Your task to perform on an android device: uninstall "Nova Launcher" Image 0: 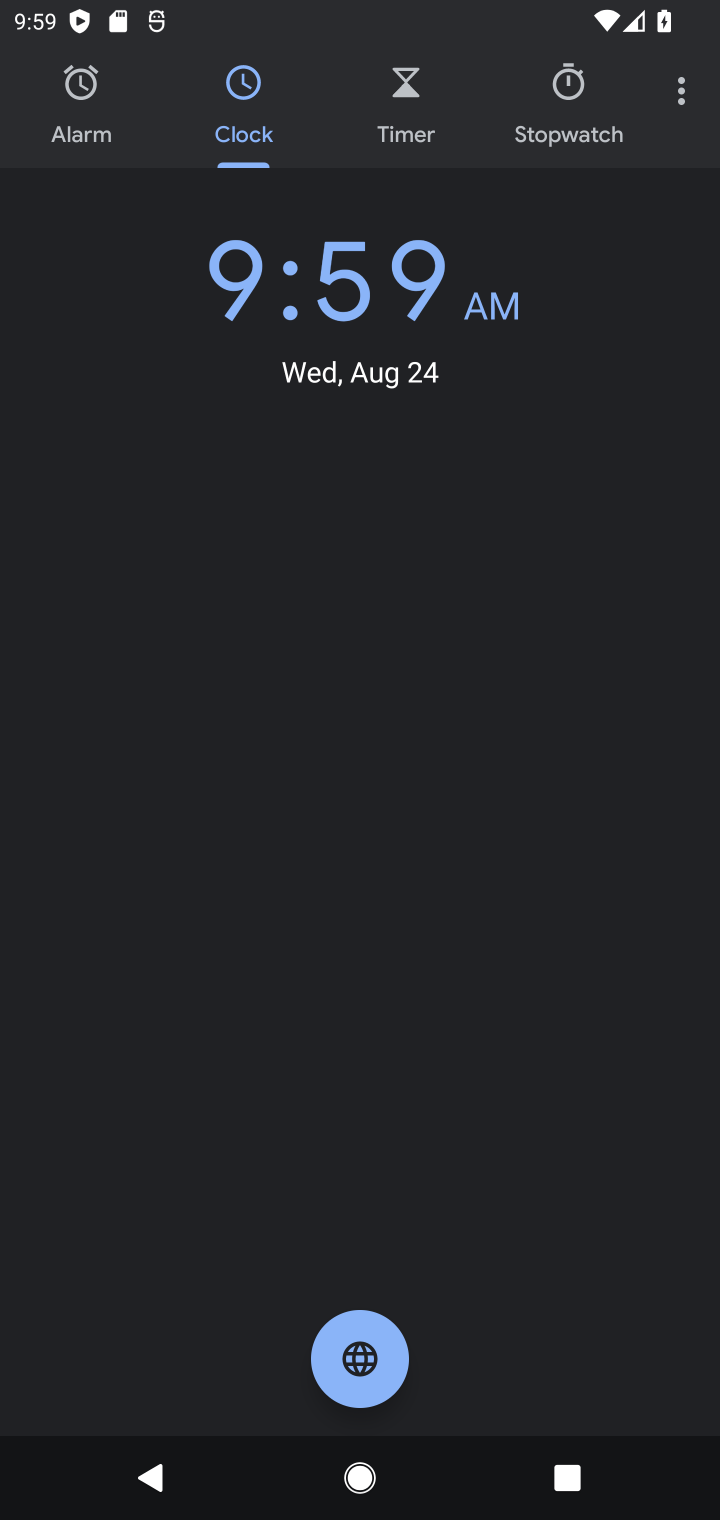
Step 0: press home button
Your task to perform on an android device: uninstall "Nova Launcher" Image 1: 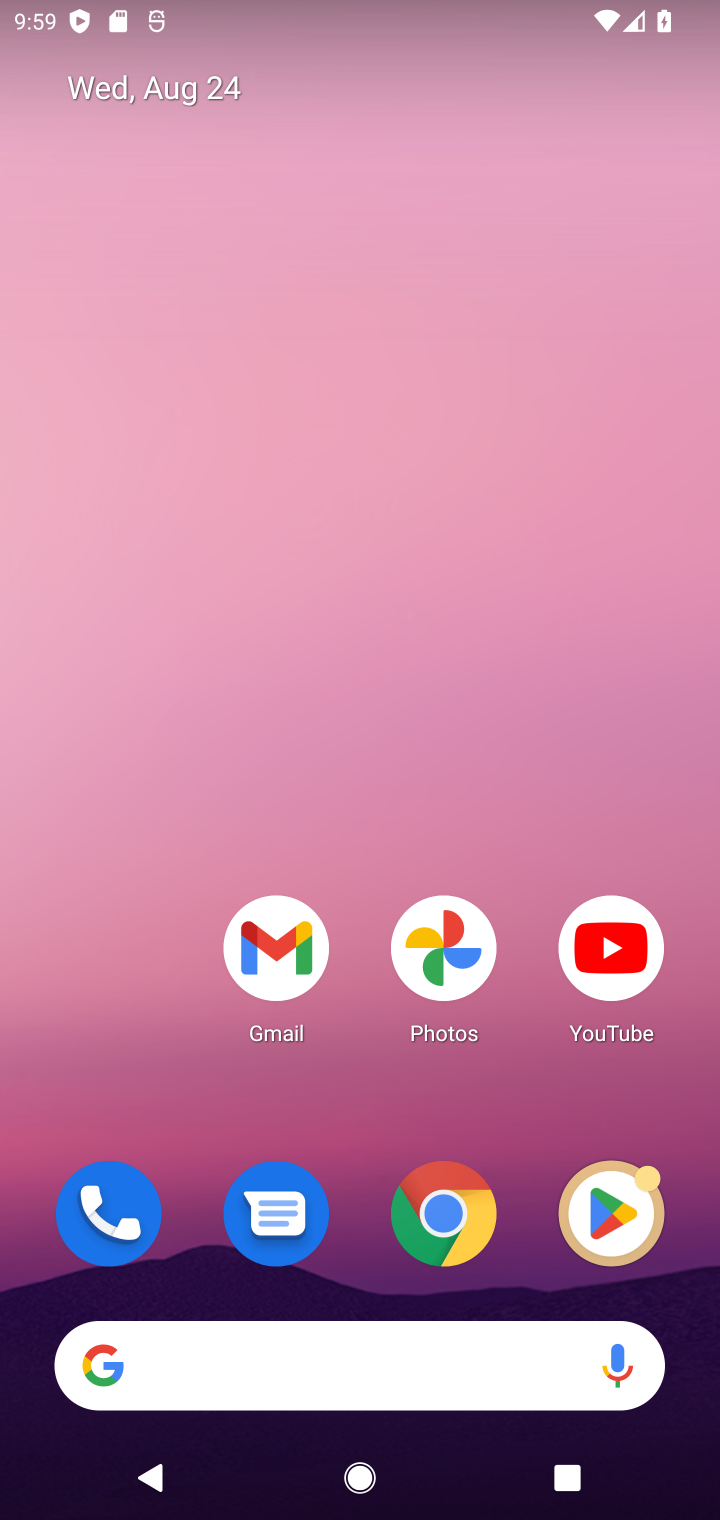
Step 1: click (604, 1194)
Your task to perform on an android device: uninstall "Nova Launcher" Image 2: 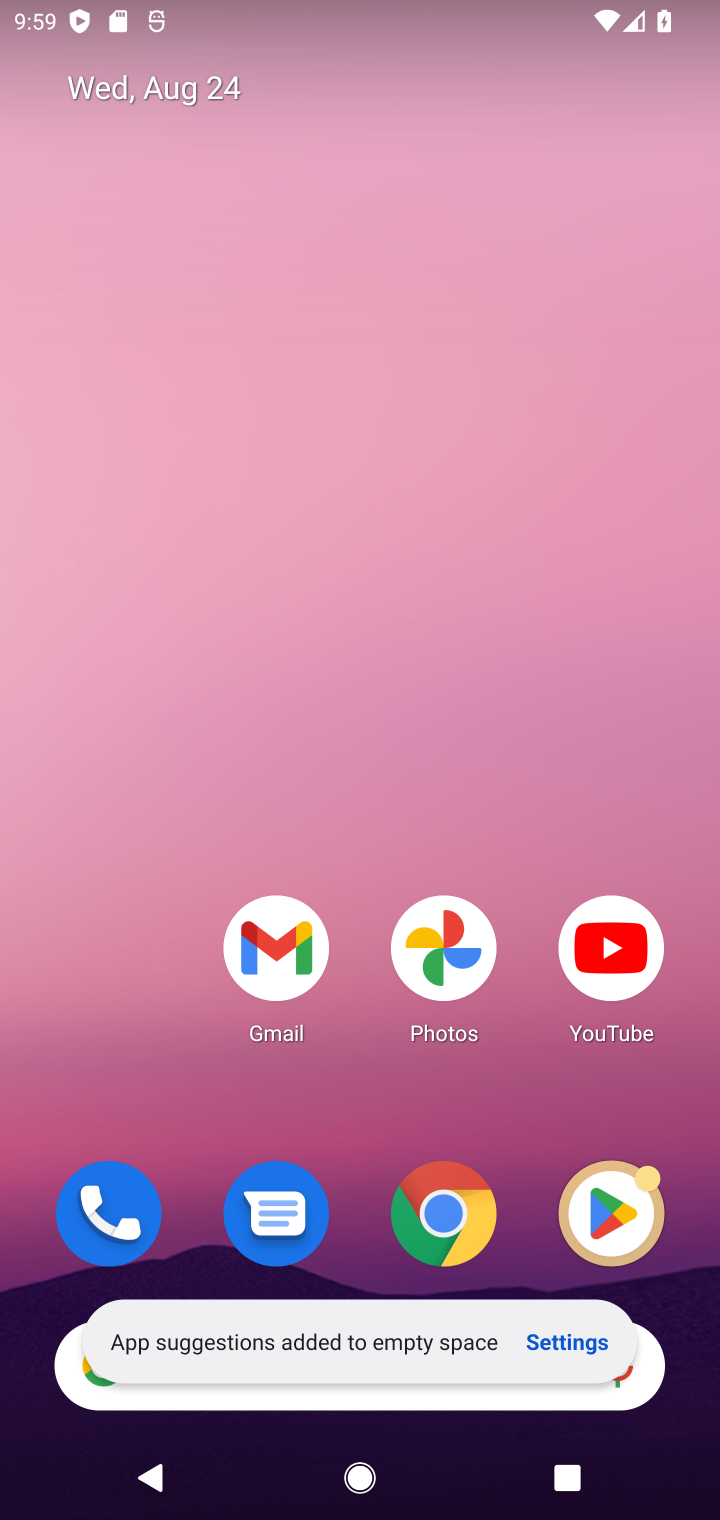
Step 2: click (608, 1190)
Your task to perform on an android device: uninstall "Nova Launcher" Image 3: 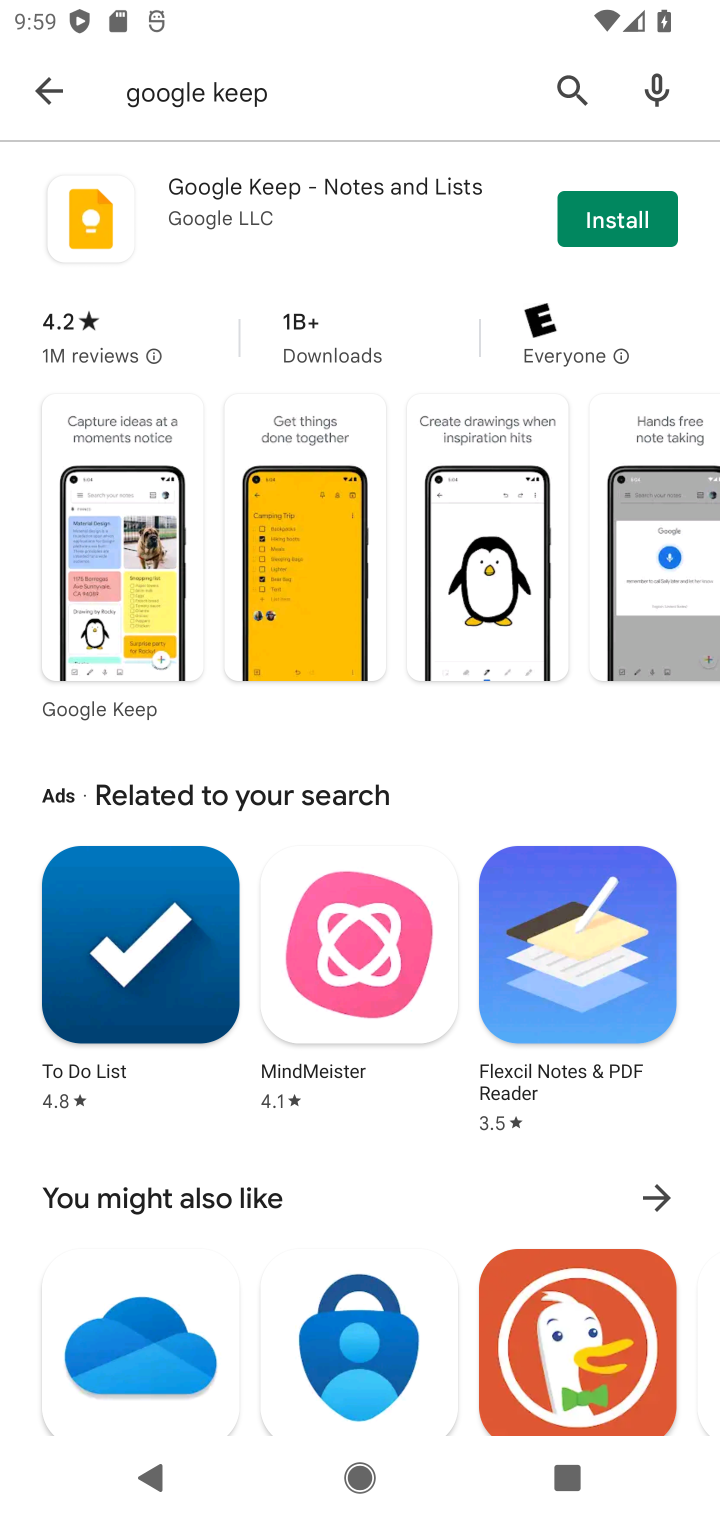
Step 3: click (319, 77)
Your task to perform on an android device: uninstall "Nova Launcher" Image 4: 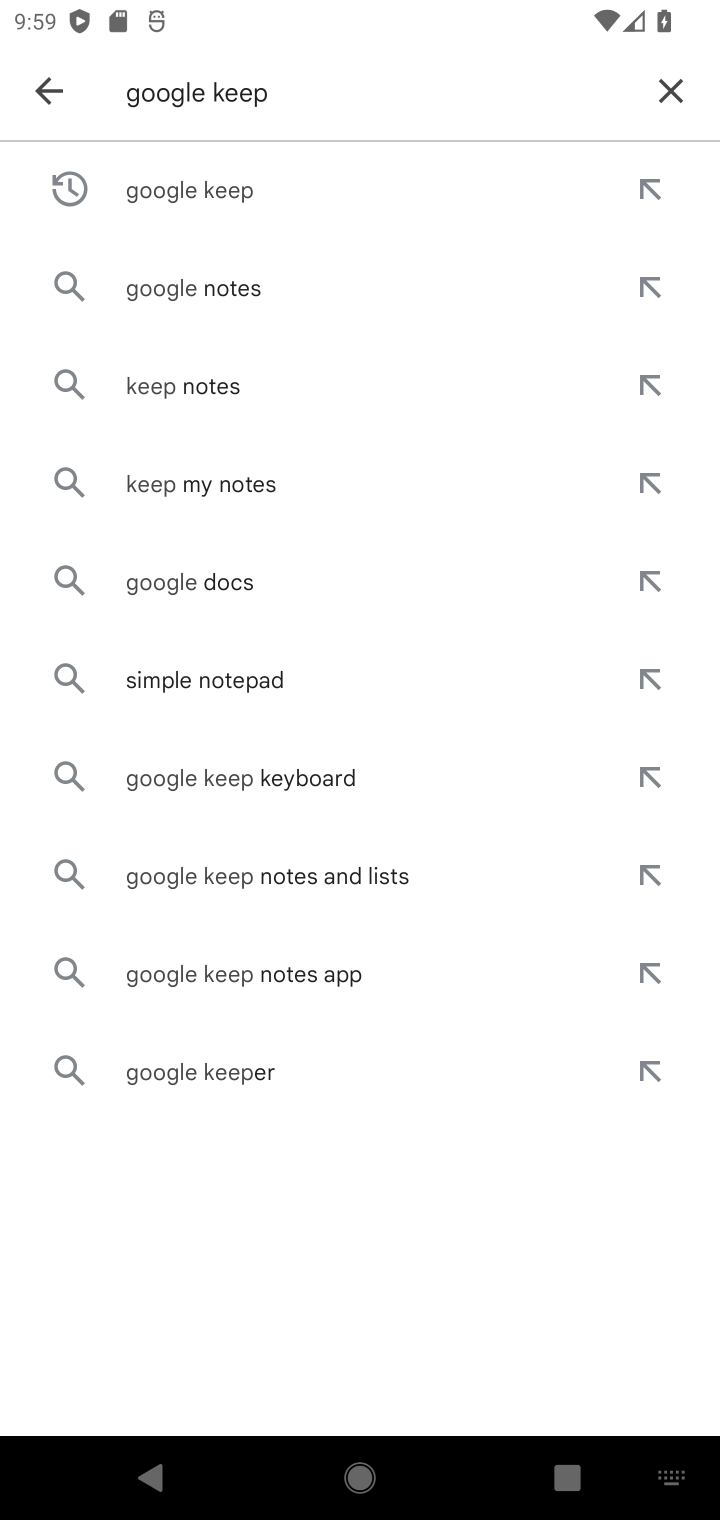
Step 4: click (647, 87)
Your task to perform on an android device: uninstall "Nova Launcher" Image 5: 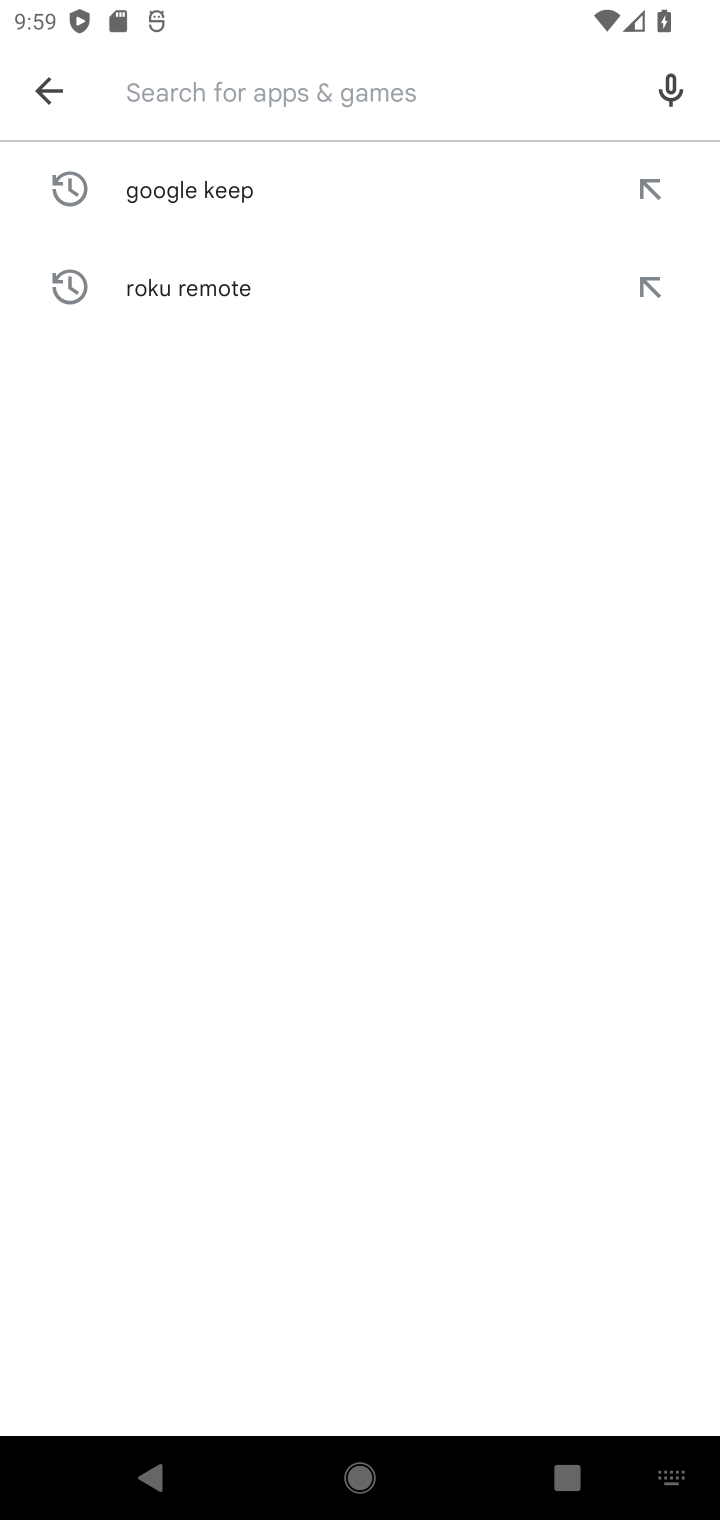
Step 5: type "Nova launcher"
Your task to perform on an android device: uninstall "Nova Launcher" Image 6: 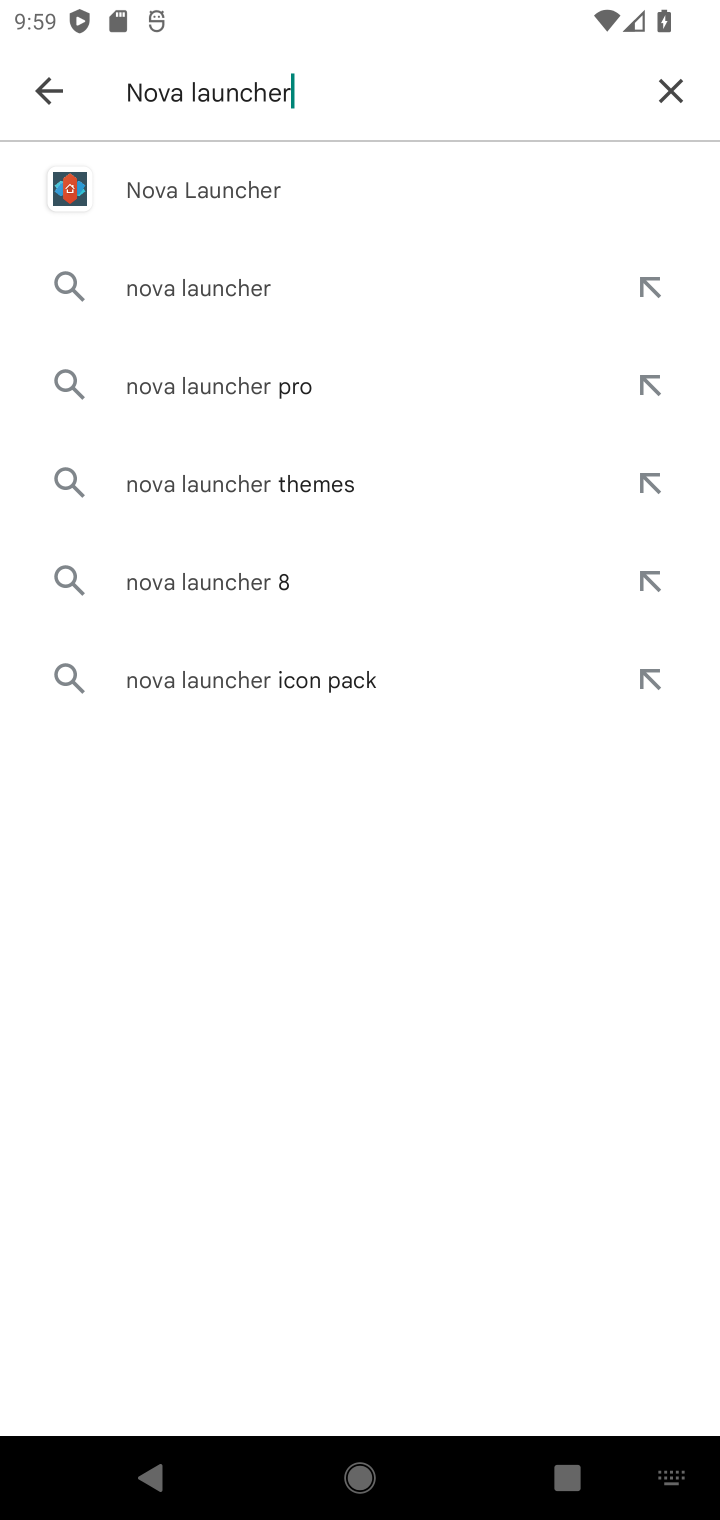
Step 6: click (340, 199)
Your task to perform on an android device: uninstall "Nova Launcher" Image 7: 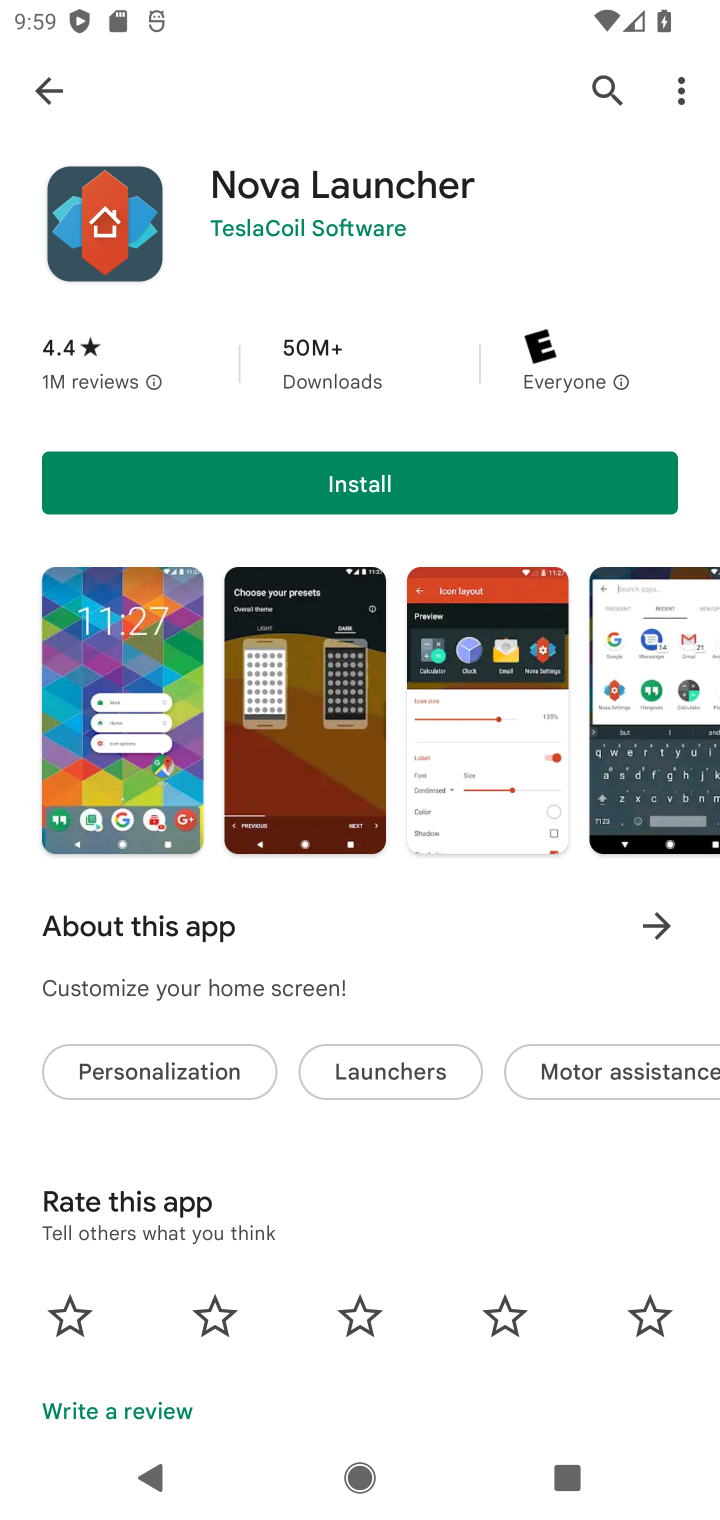
Step 7: task complete